Your task to perform on an android device: move a message to another label in the gmail app Image 0: 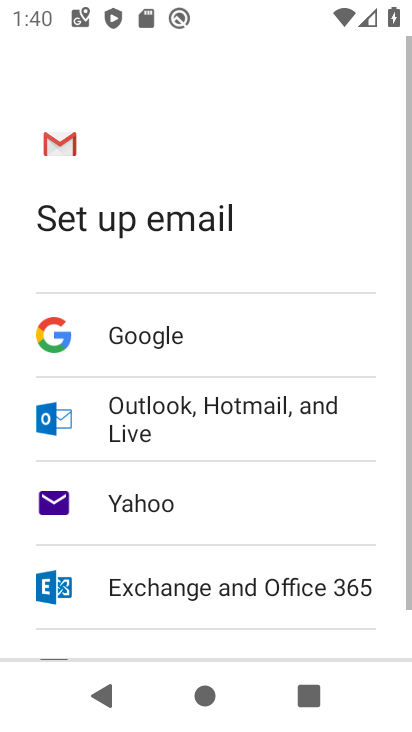
Step 0: press home button
Your task to perform on an android device: move a message to another label in the gmail app Image 1: 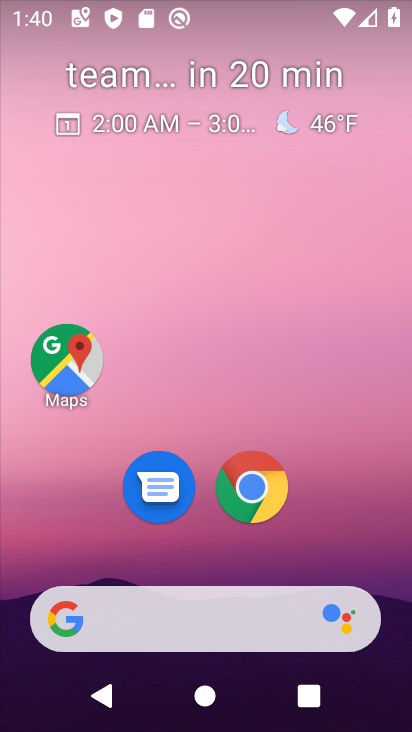
Step 1: drag from (321, 525) to (234, 56)
Your task to perform on an android device: move a message to another label in the gmail app Image 2: 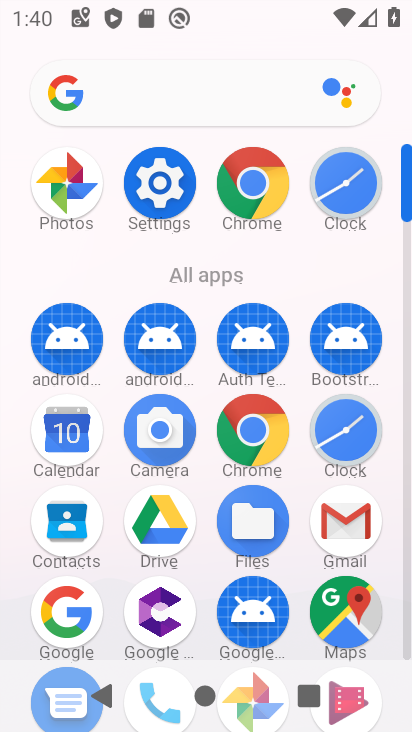
Step 2: click (362, 527)
Your task to perform on an android device: move a message to another label in the gmail app Image 3: 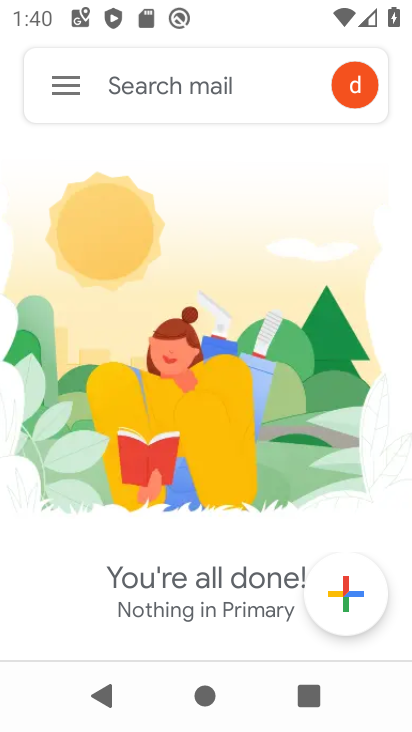
Step 3: click (67, 87)
Your task to perform on an android device: move a message to another label in the gmail app Image 4: 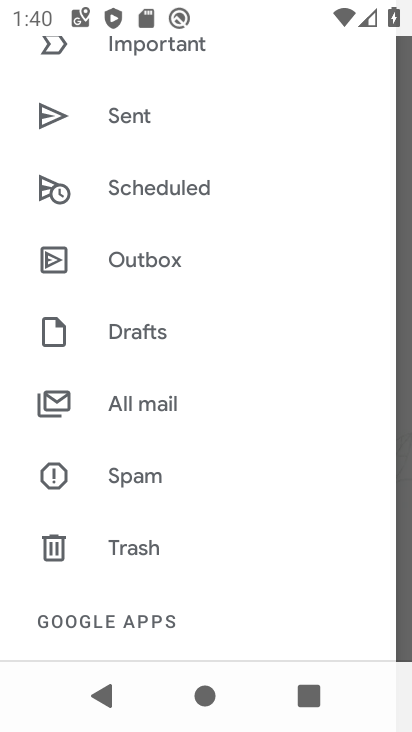
Step 4: click (213, 245)
Your task to perform on an android device: move a message to another label in the gmail app Image 5: 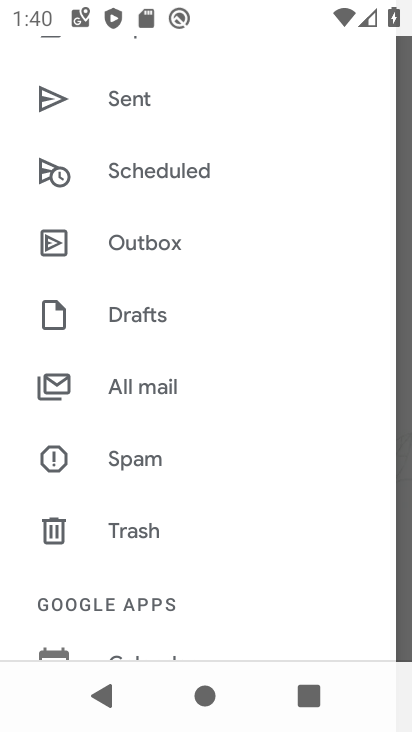
Step 5: click (168, 387)
Your task to perform on an android device: move a message to another label in the gmail app Image 6: 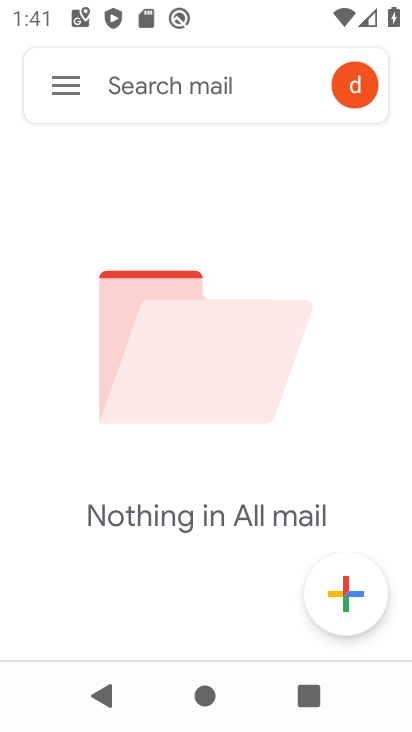
Step 6: task complete